Your task to perform on an android device: Search for apple airpods pro on costco.com, select the first entry, add it to the cart, then select checkout. Image 0: 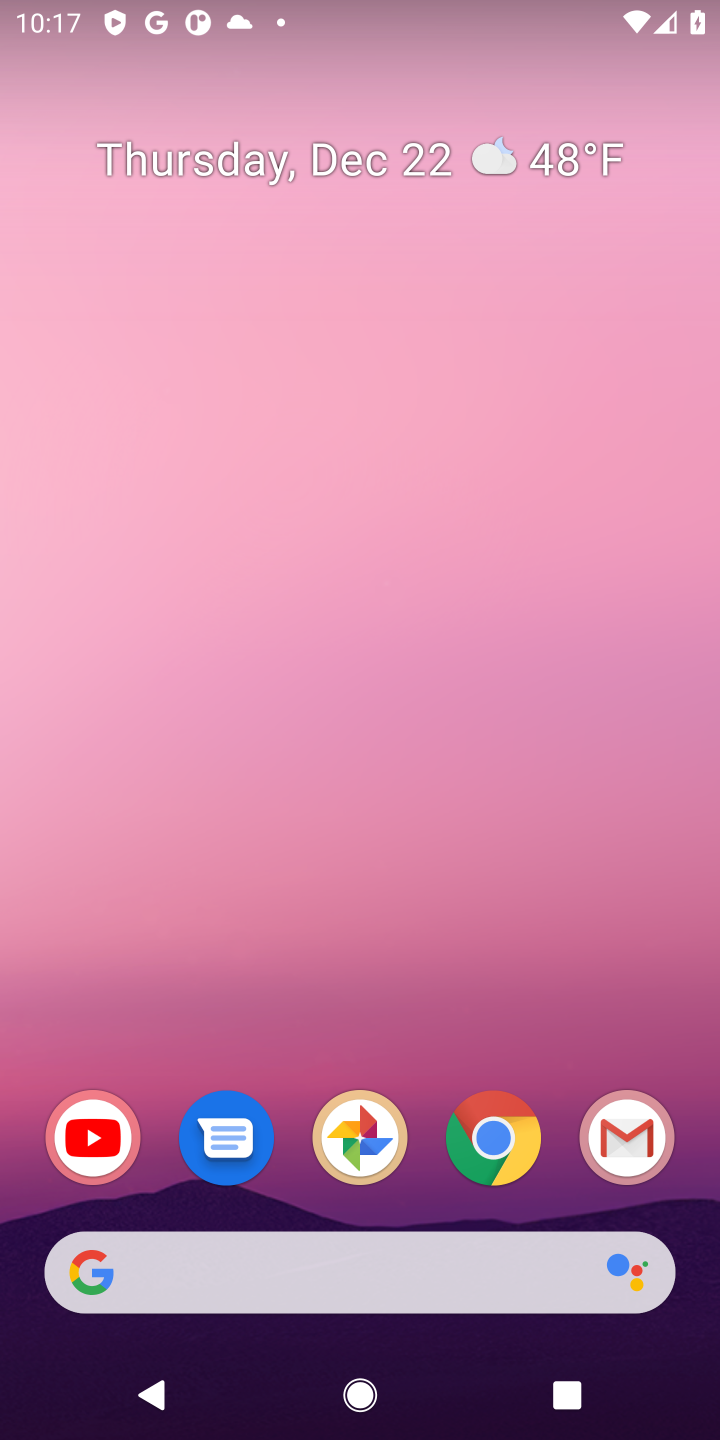
Step 0: click (498, 1136)
Your task to perform on an android device: Search for apple airpods pro on costco.com, select the first entry, add it to the cart, then select checkout. Image 1: 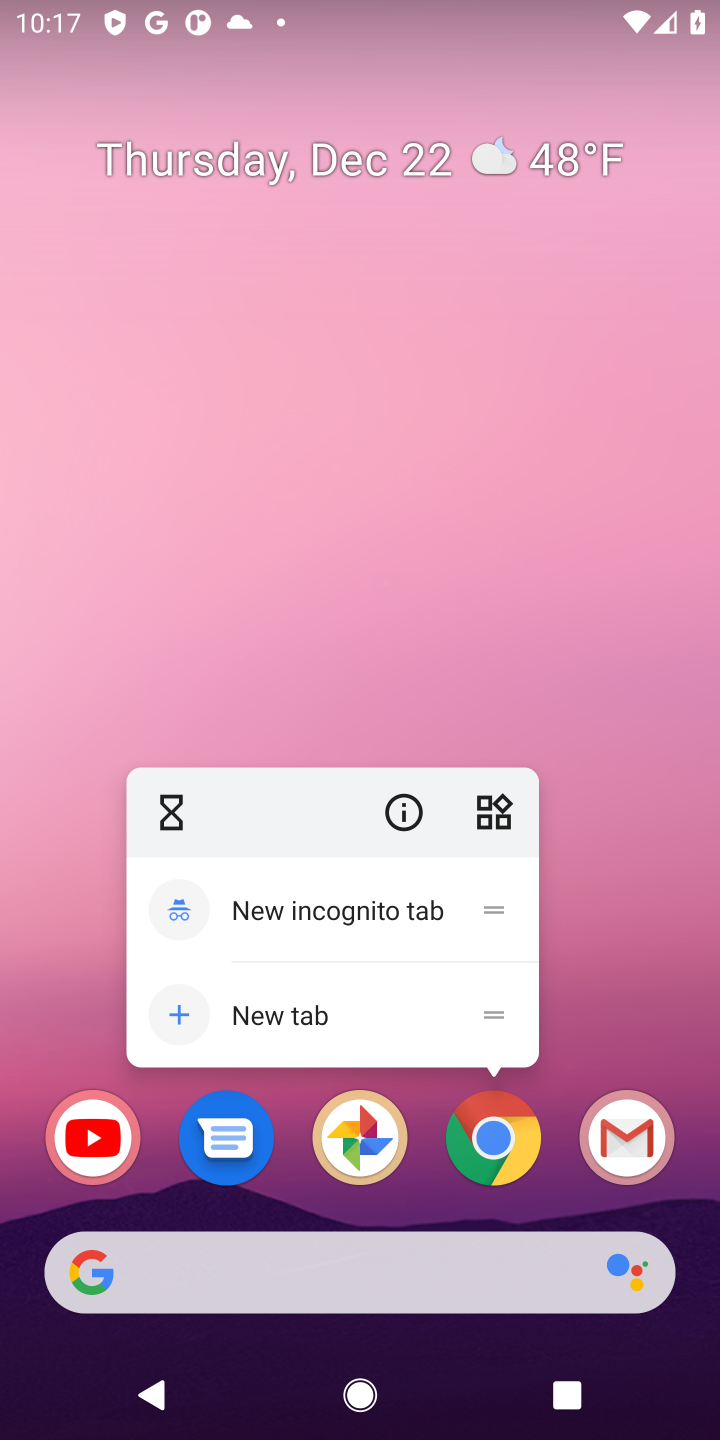
Step 1: click (518, 1132)
Your task to perform on an android device: Search for apple airpods pro on costco.com, select the first entry, add it to the cart, then select checkout. Image 2: 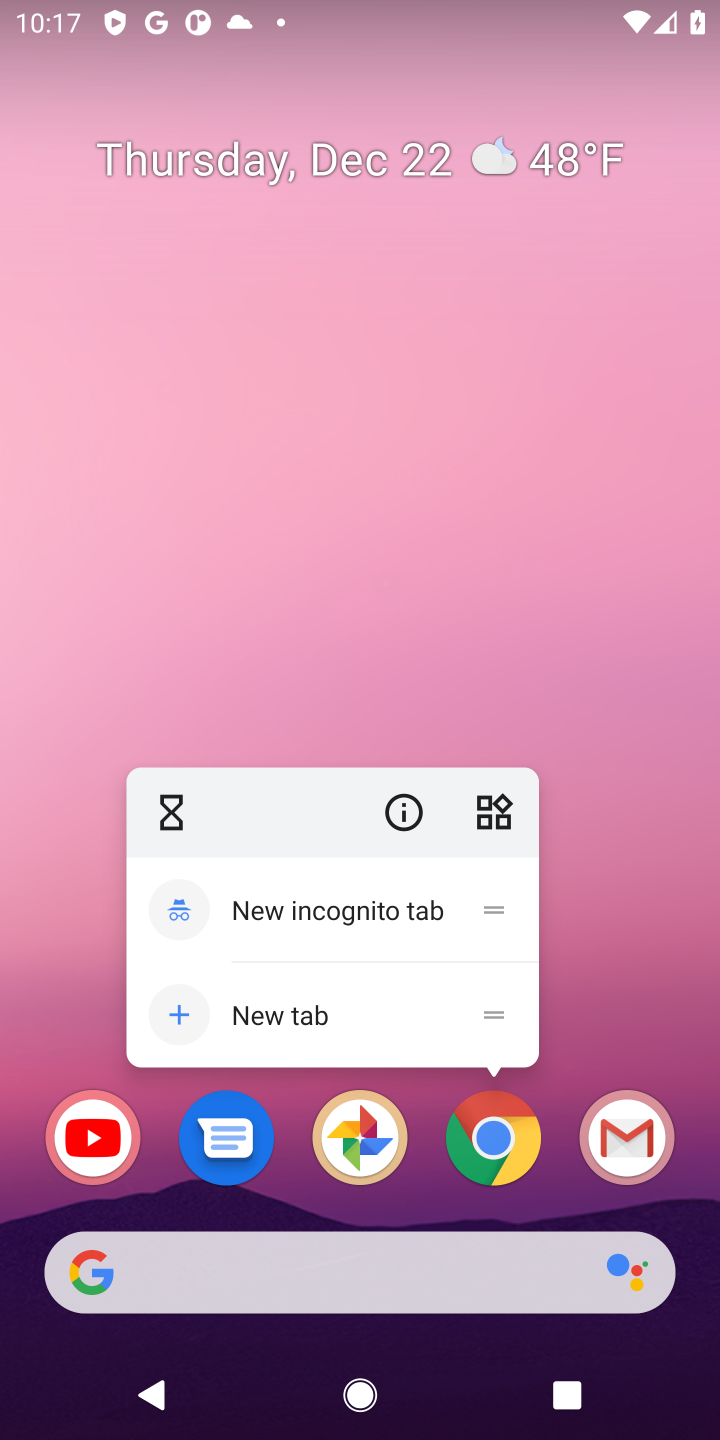
Step 2: click (518, 1132)
Your task to perform on an android device: Search for apple airpods pro on costco.com, select the first entry, add it to the cart, then select checkout. Image 3: 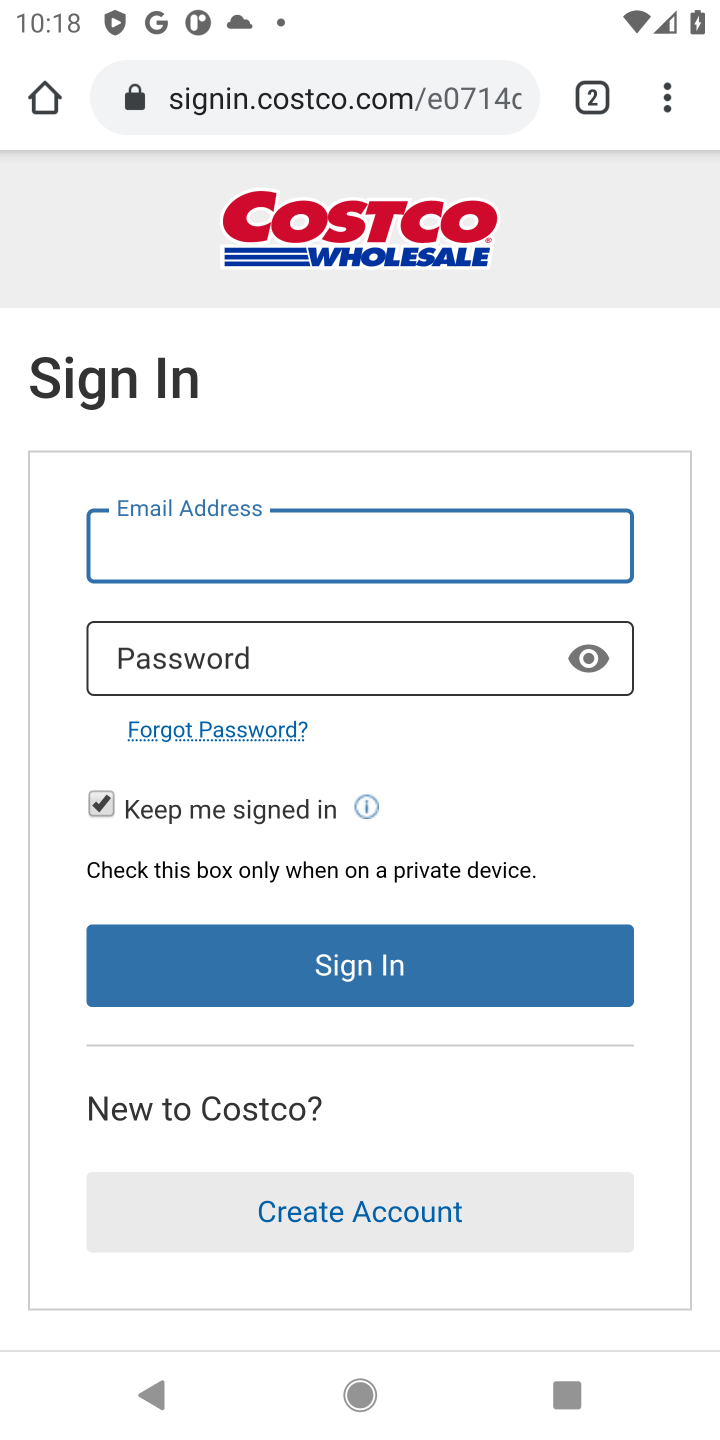
Step 3: press back button
Your task to perform on an android device: Search for apple airpods pro on costco.com, select the first entry, add it to the cart, then select checkout. Image 4: 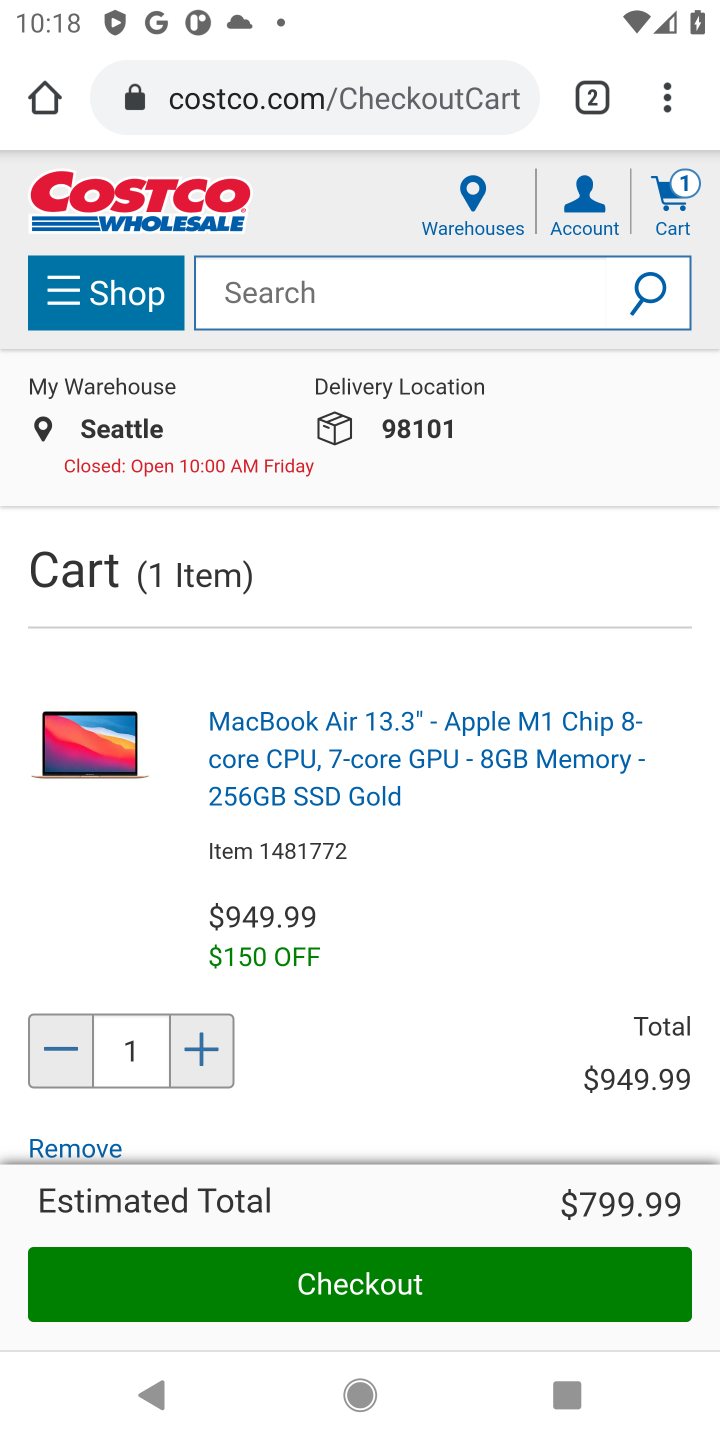
Step 4: click (462, 292)
Your task to perform on an android device: Search for apple airpods pro on costco.com, select the first entry, add it to the cart, then select checkout. Image 5: 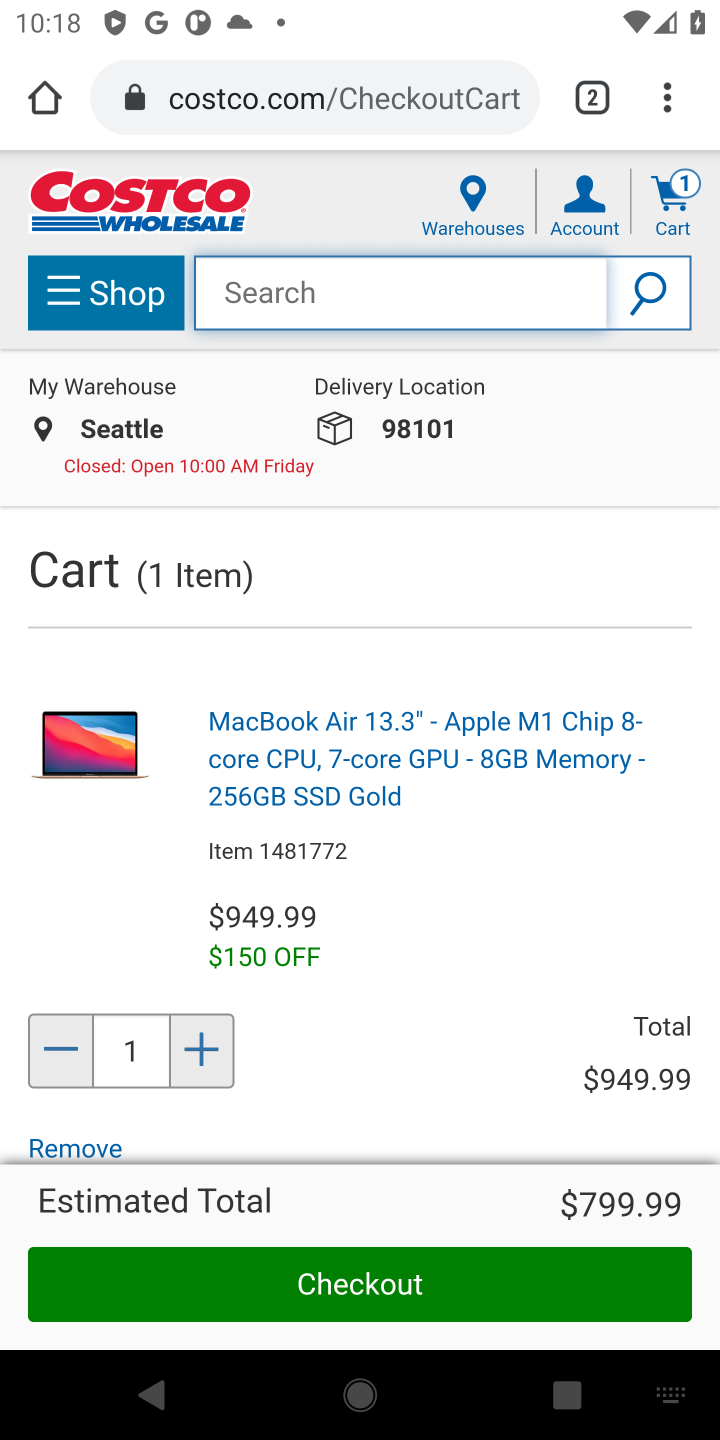
Step 5: type "apple airpods pro"
Your task to perform on an android device: Search for apple airpods pro on costco.com, select the first entry, add it to the cart, then select checkout. Image 6: 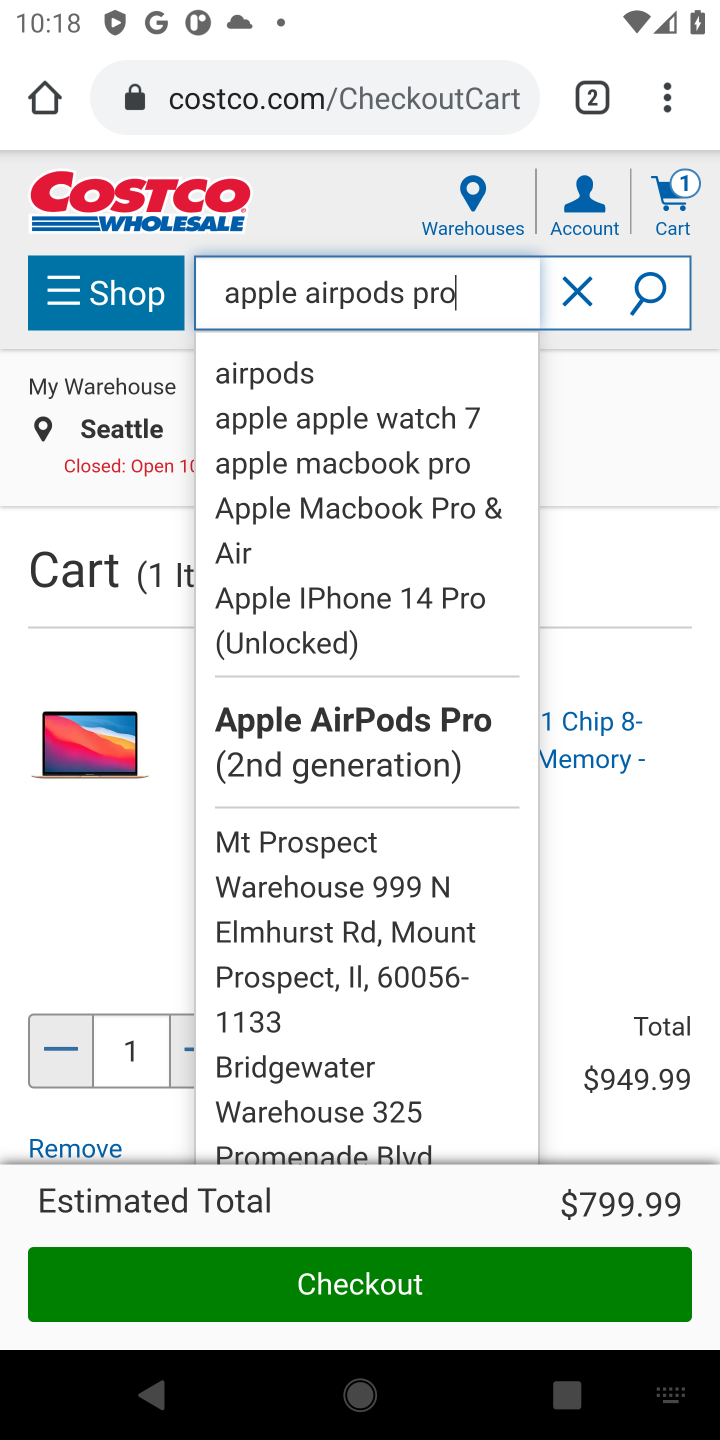
Step 6: press enter
Your task to perform on an android device: Search for apple airpods pro on costco.com, select the first entry, add it to the cart, then select checkout. Image 7: 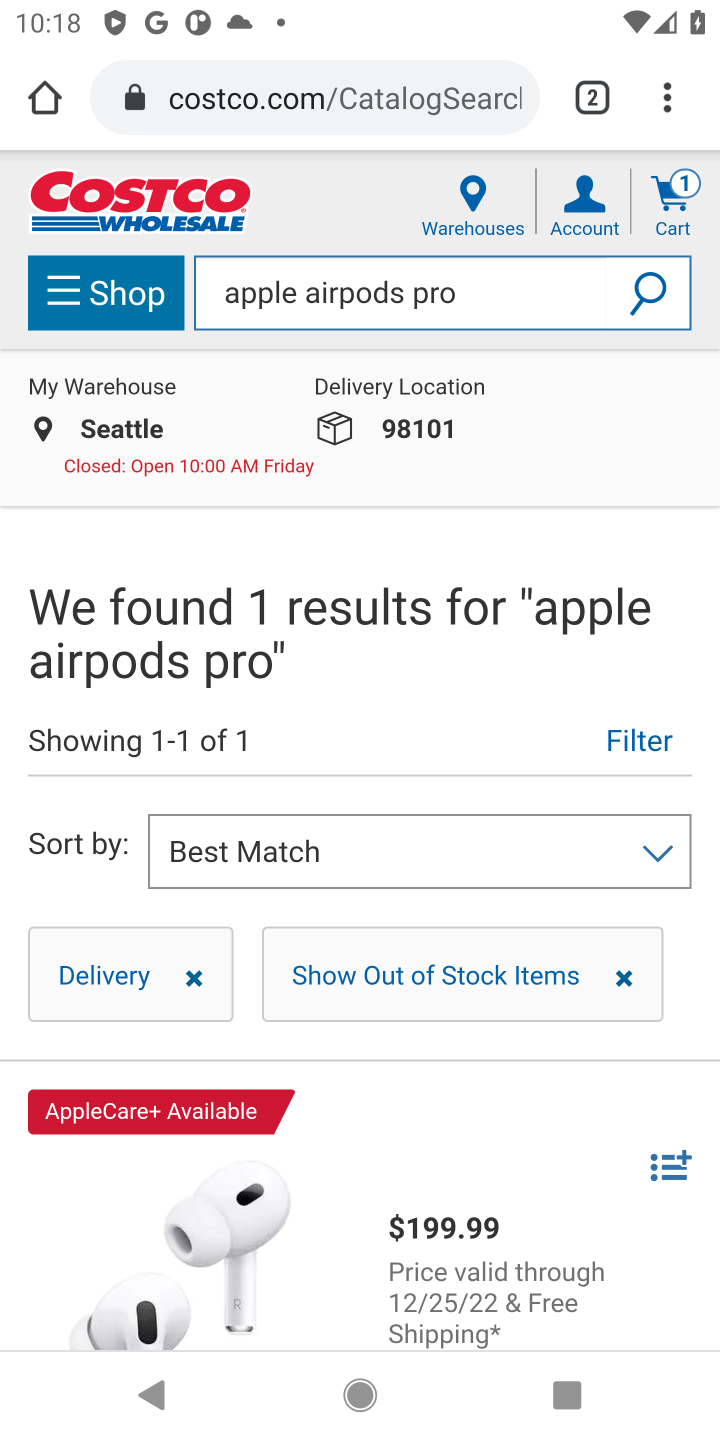
Step 7: drag from (518, 1140) to (558, 458)
Your task to perform on an android device: Search for apple airpods pro on costco.com, select the first entry, add it to the cart, then select checkout. Image 8: 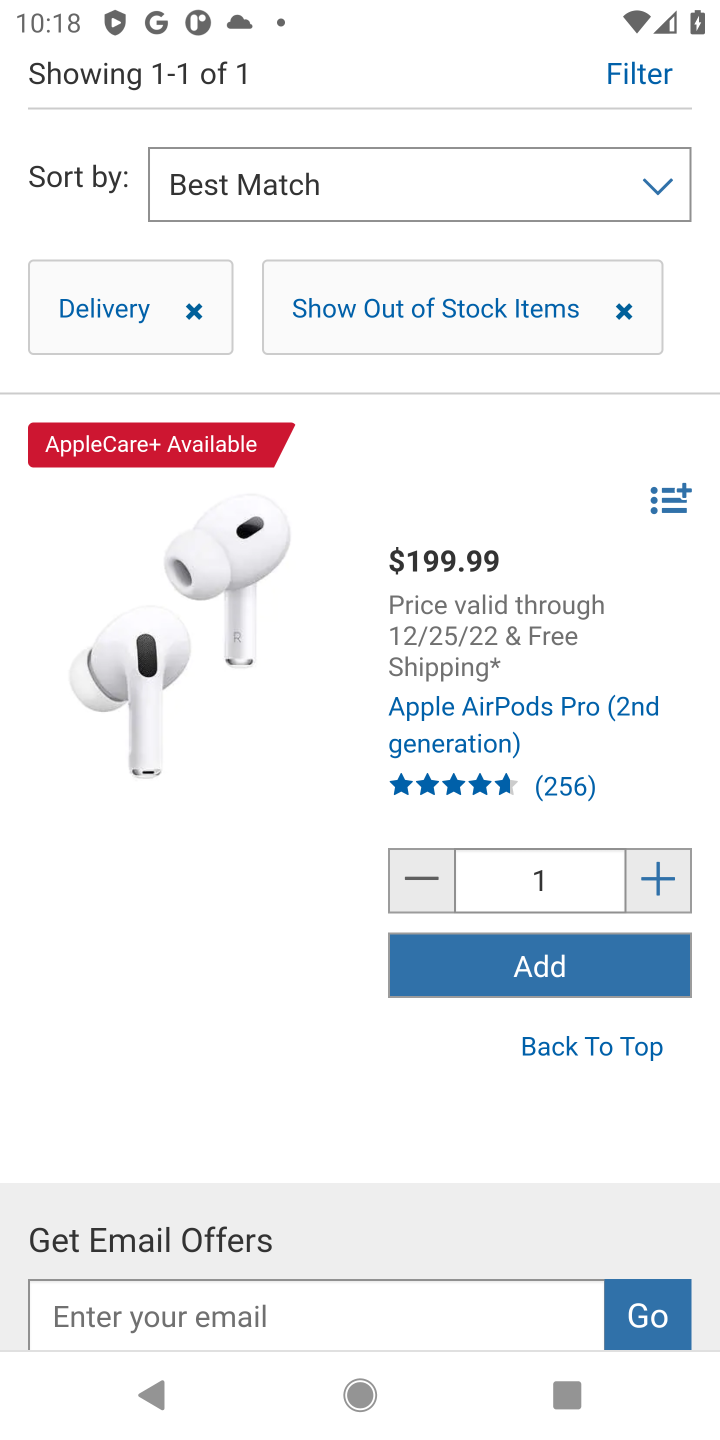
Step 8: click (106, 611)
Your task to perform on an android device: Search for apple airpods pro on costco.com, select the first entry, add it to the cart, then select checkout. Image 9: 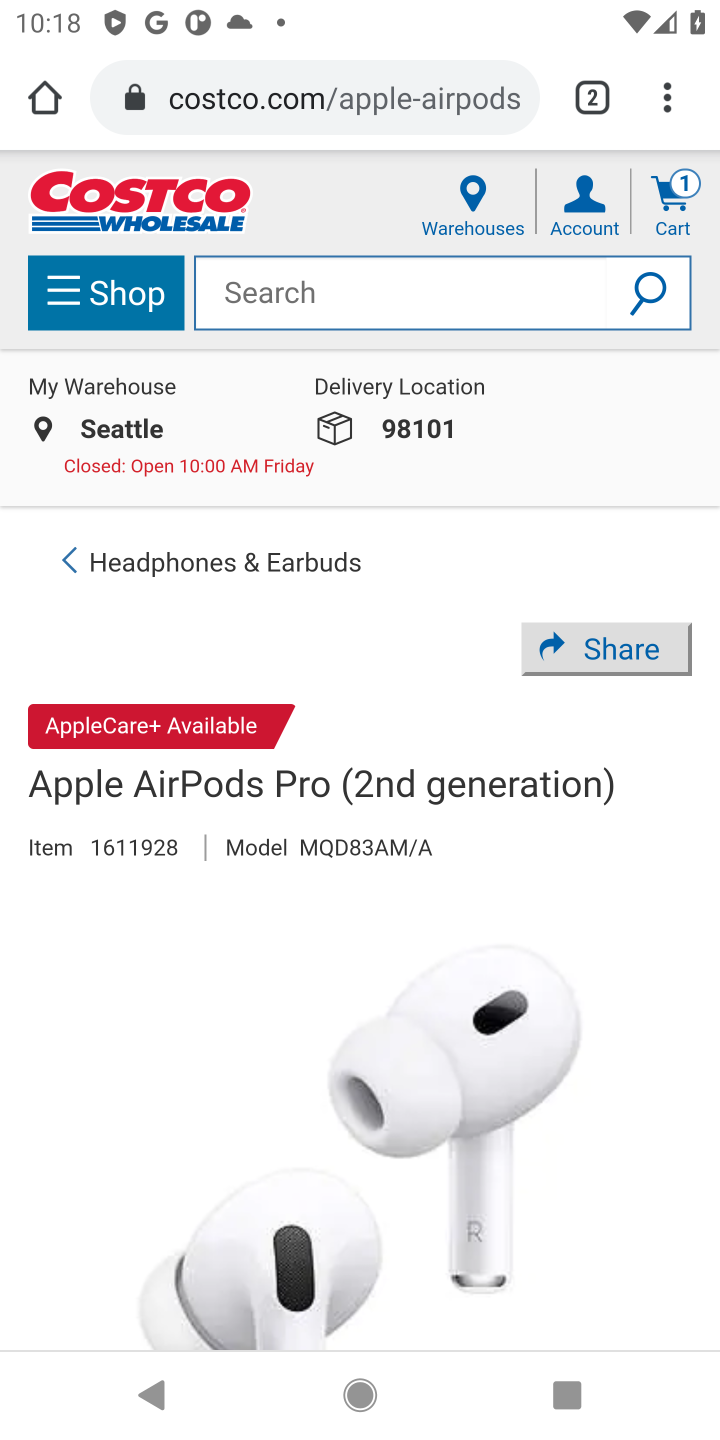
Step 9: drag from (540, 1122) to (441, 292)
Your task to perform on an android device: Search for apple airpods pro on costco.com, select the first entry, add it to the cart, then select checkout. Image 10: 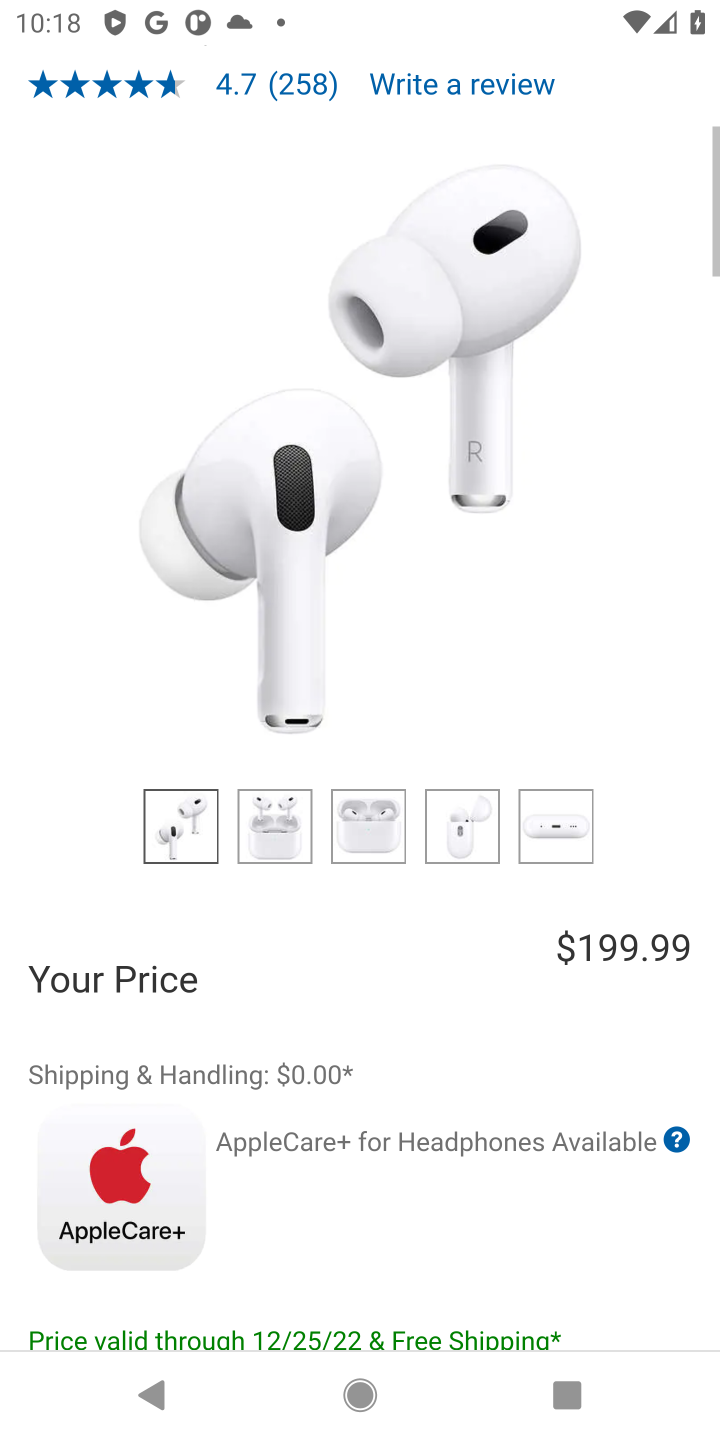
Step 10: drag from (445, 595) to (440, 315)
Your task to perform on an android device: Search for apple airpods pro on costco.com, select the first entry, add it to the cart, then select checkout. Image 11: 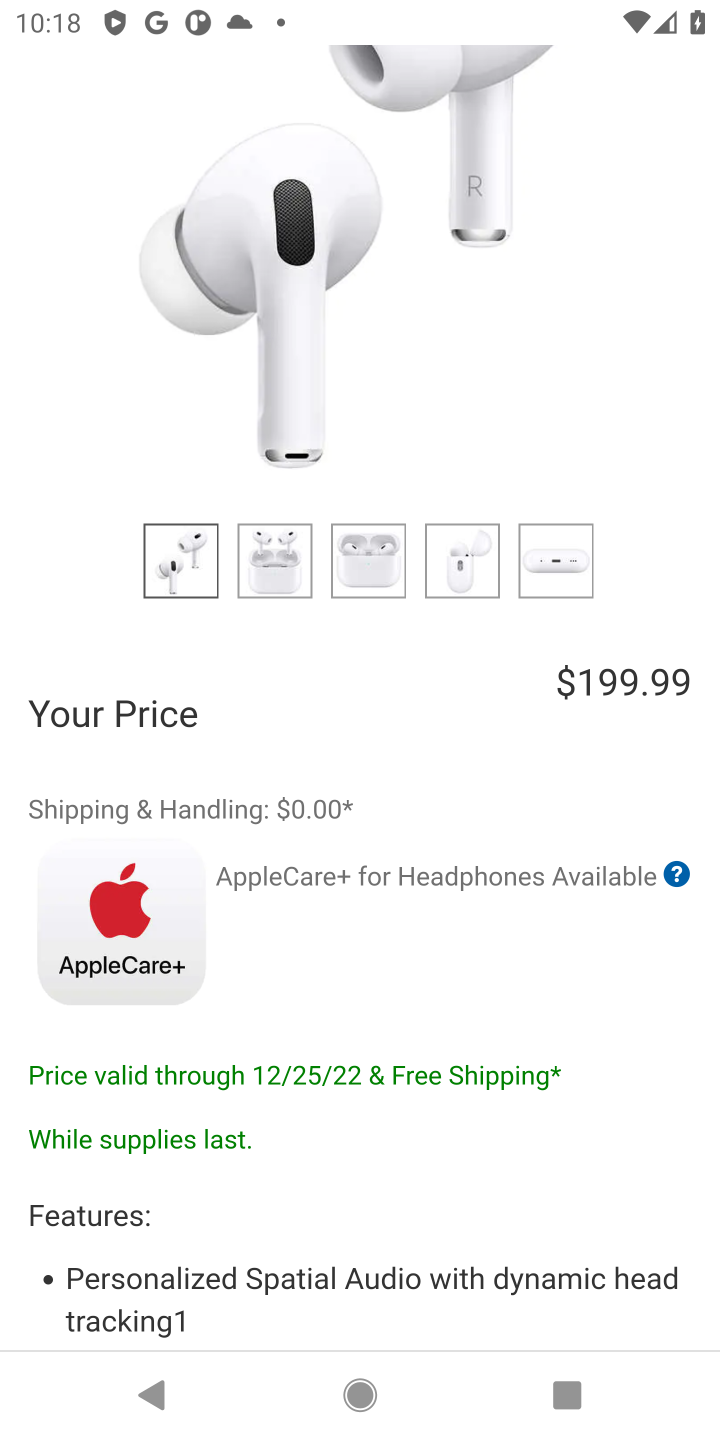
Step 11: drag from (526, 1094) to (440, 465)
Your task to perform on an android device: Search for apple airpods pro on costco.com, select the first entry, add it to the cart, then select checkout. Image 12: 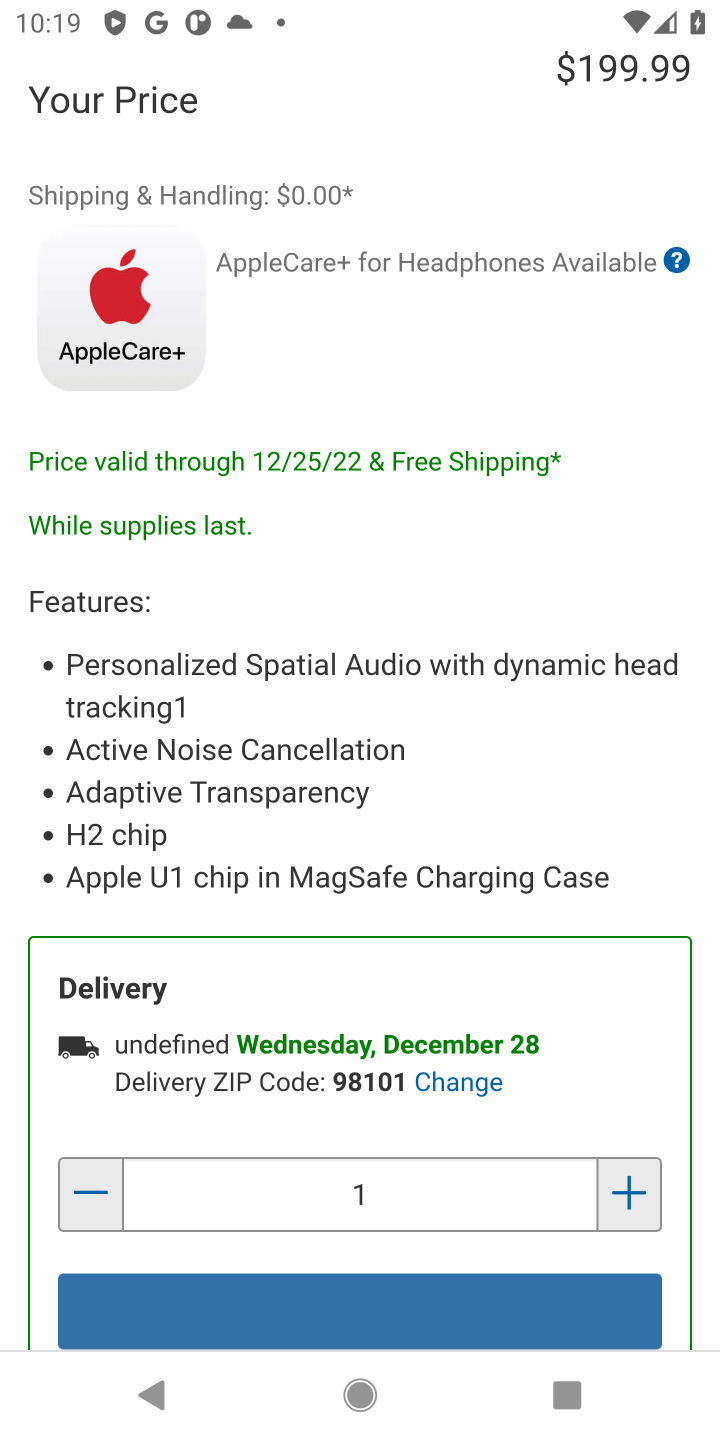
Step 12: press back button
Your task to perform on an android device: Search for apple airpods pro on costco.com, select the first entry, add it to the cart, then select checkout. Image 13: 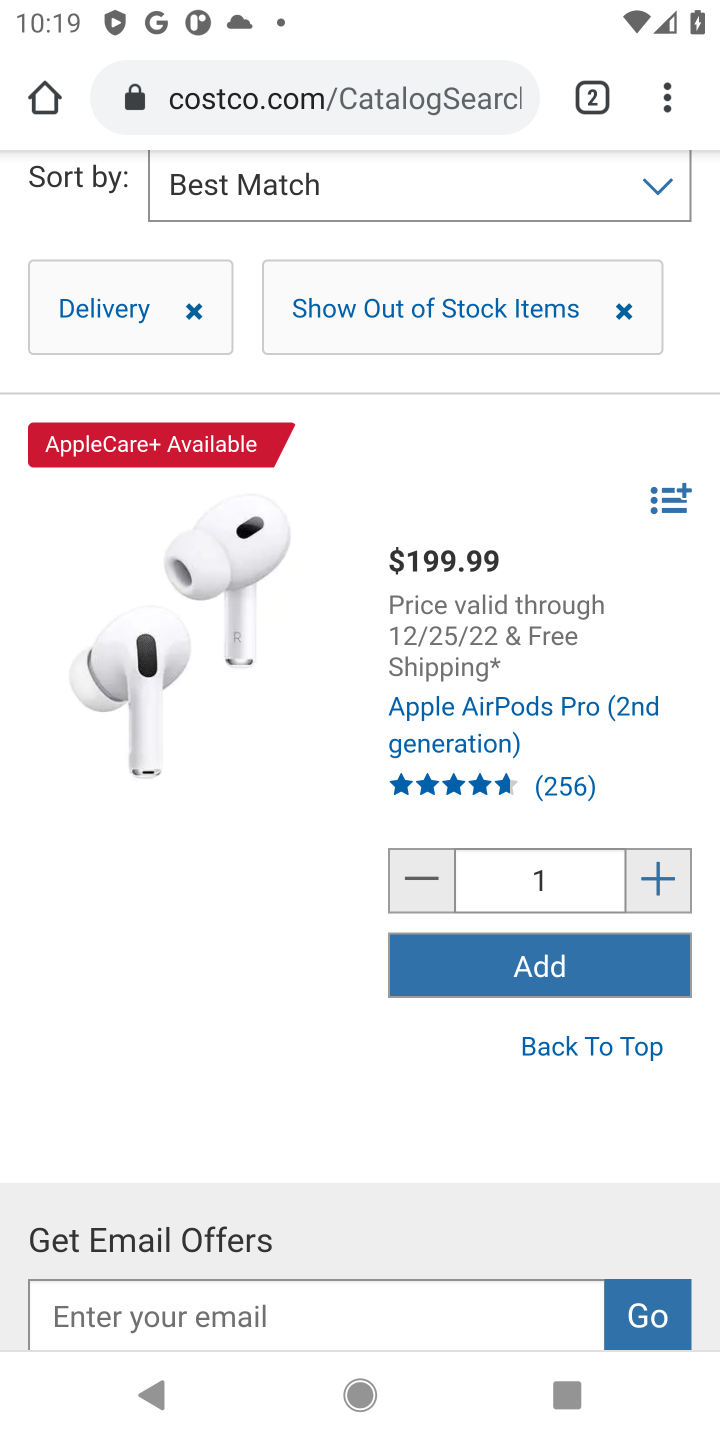
Step 13: click (521, 963)
Your task to perform on an android device: Search for apple airpods pro on costco.com, select the first entry, add it to the cart, then select checkout. Image 14: 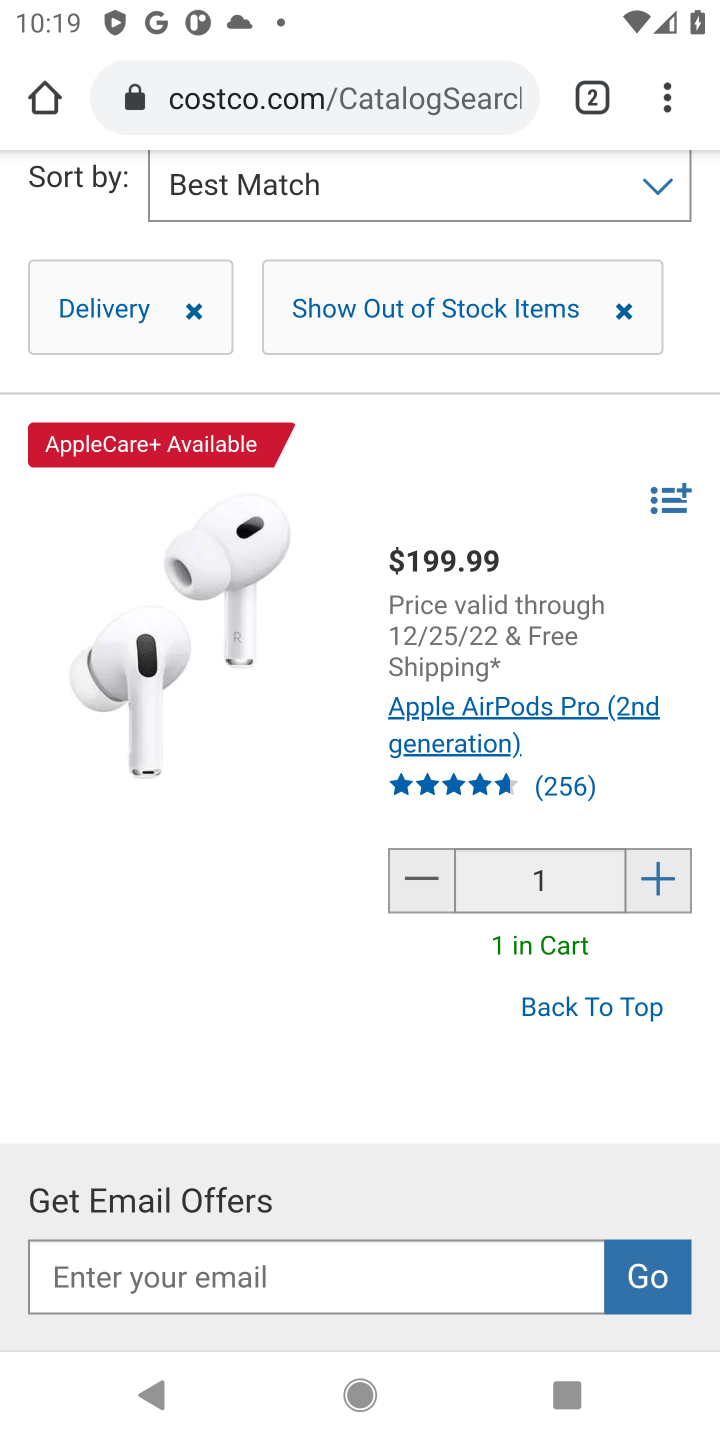
Step 14: drag from (551, 584) to (616, 1205)
Your task to perform on an android device: Search for apple airpods pro on costco.com, select the first entry, add it to the cart, then select checkout. Image 15: 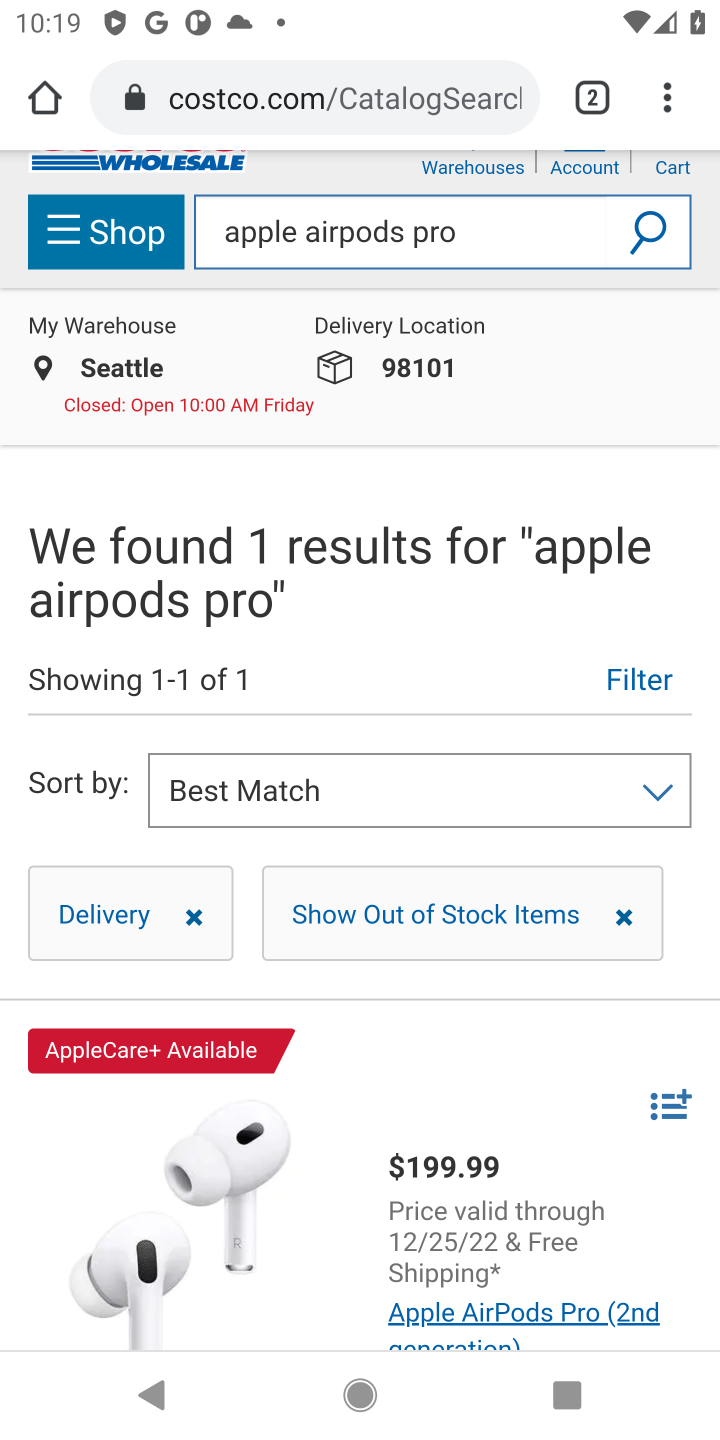
Step 15: drag from (604, 331) to (672, 922)
Your task to perform on an android device: Search for apple airpods pro on costco.com, select the first entry, add it to the cart, then select checkout. Image 16: 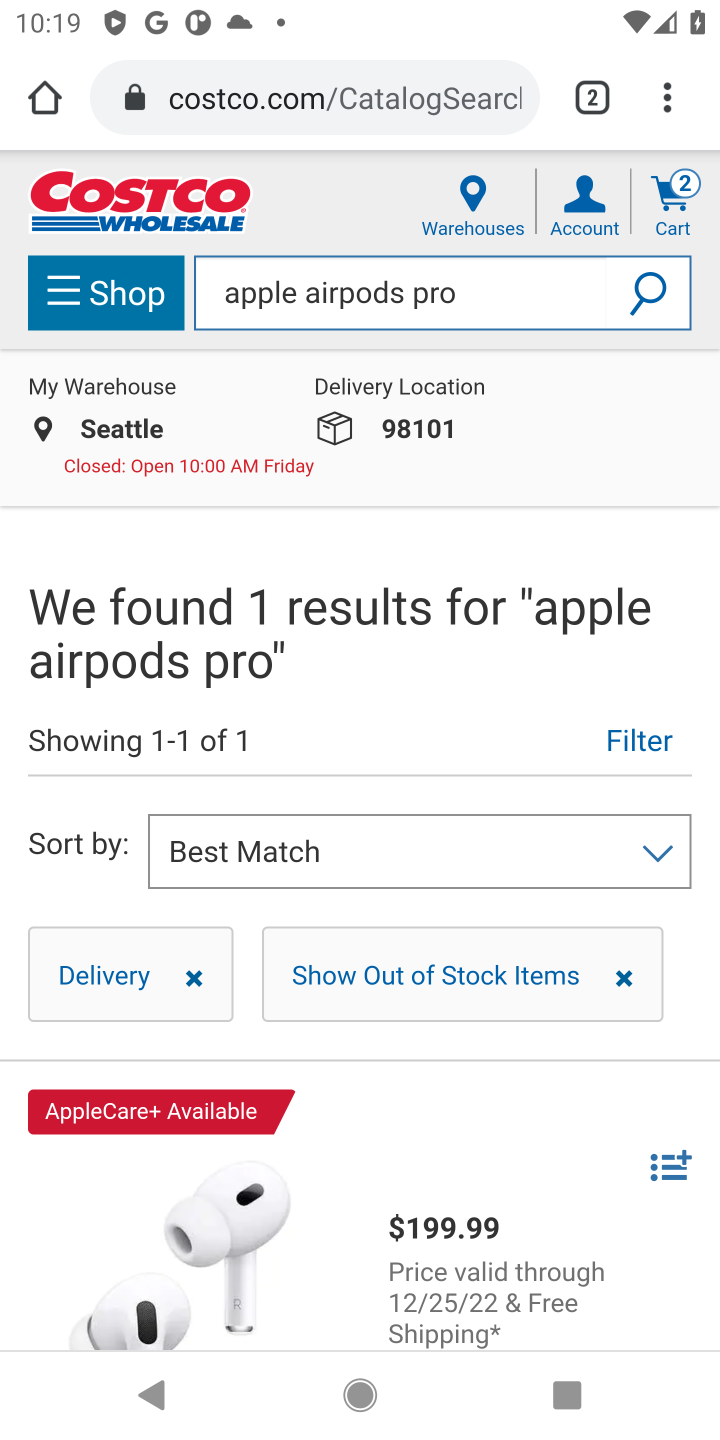
Step 16: click (677, 199)
Your task to perform on an android device: Search for apple airpods pro on costco.com, select the first entry, add it to the cart, then select checkout. Image 17: 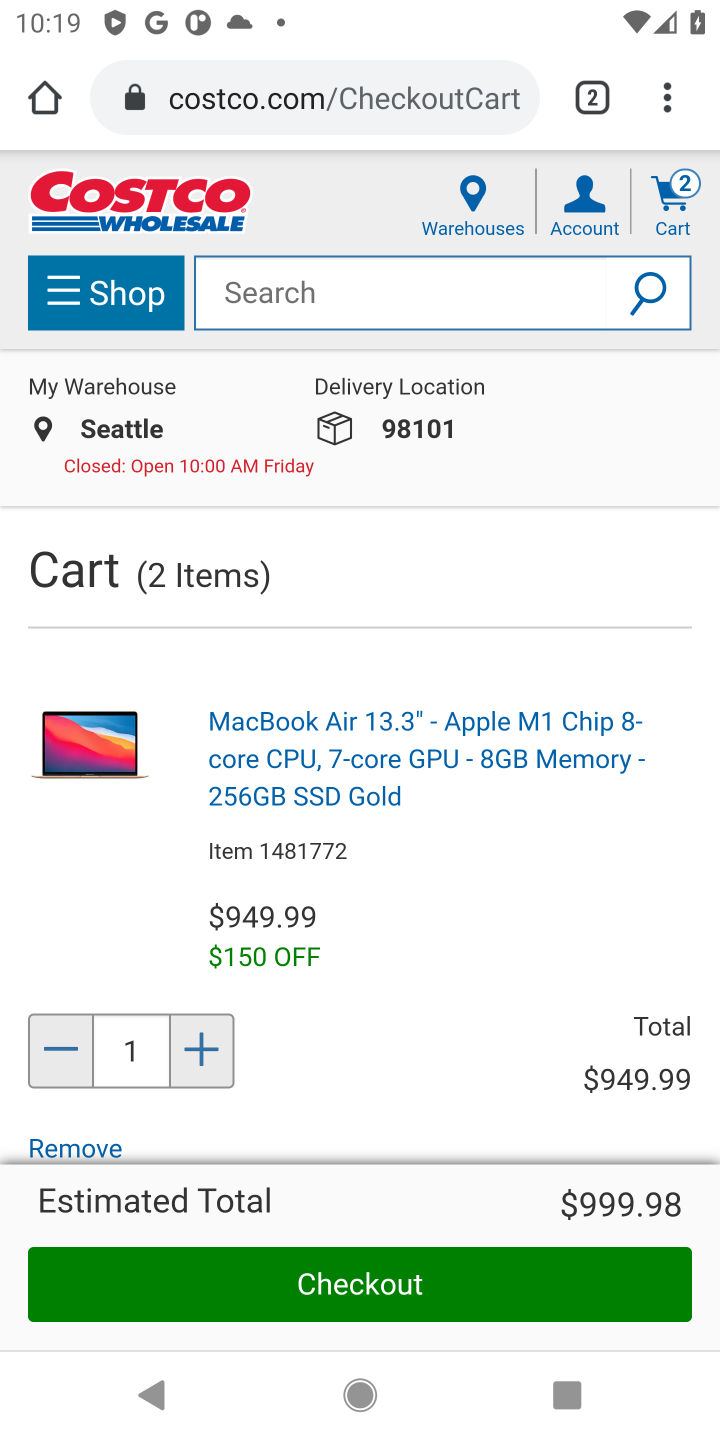
Step 17: click (365, 1289)
Your task to perform on an android device: Search for apple airpods pro on costco.com, select the first entry, add it to the cart, then select checkout. Image 18: 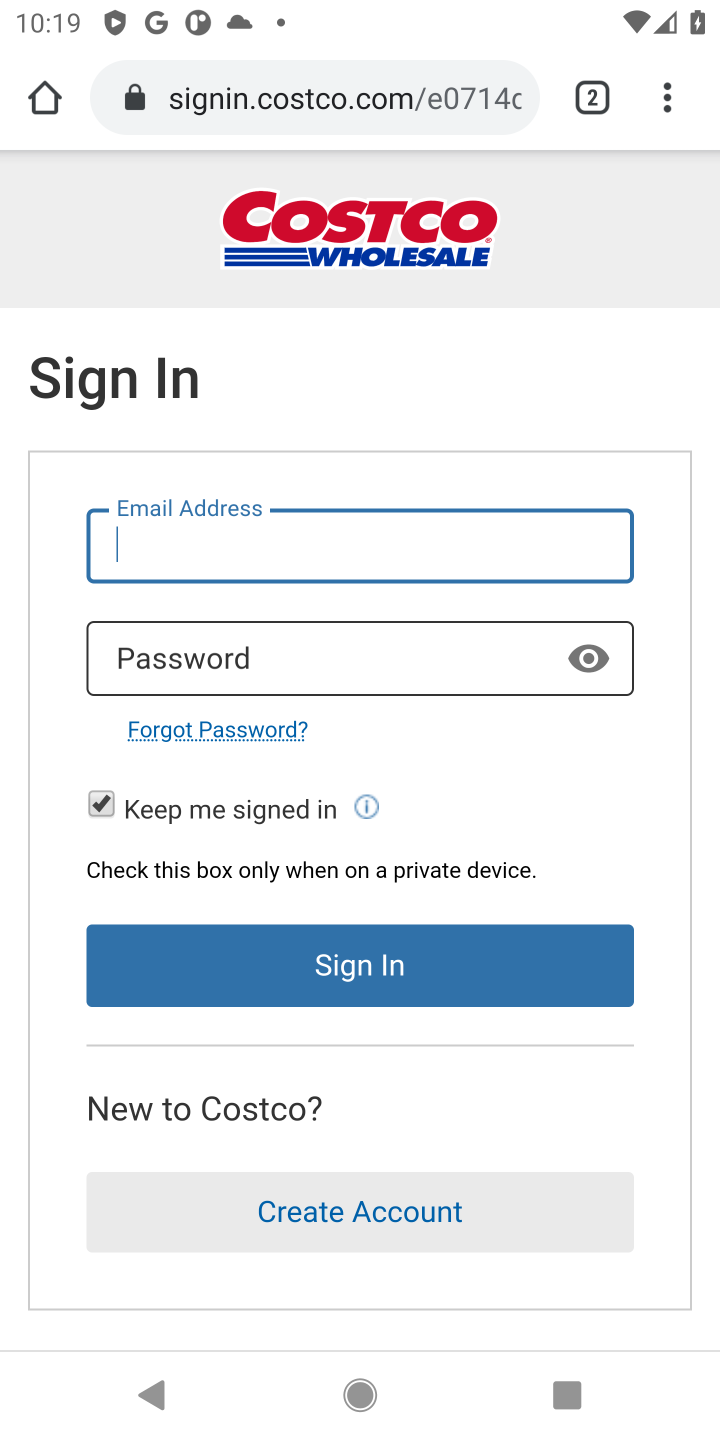
Step 18: task complete